Your task to perform on an android device: open chrome and create a bookmark for the current page Image 0: 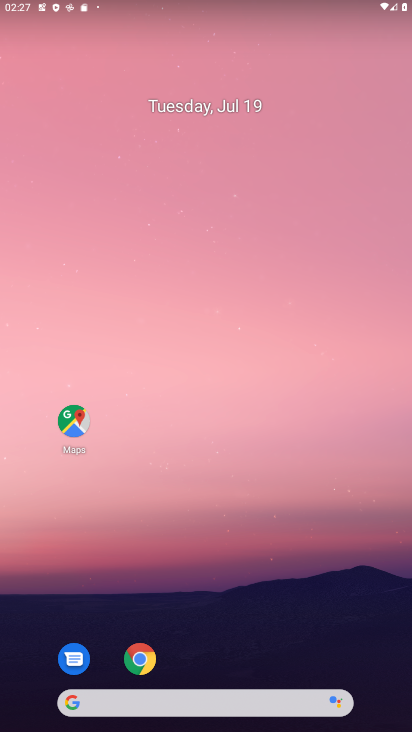
Step 0: press home button
Your task to perform on an android device: open chrome and create a bookmark for the current page Image 1: 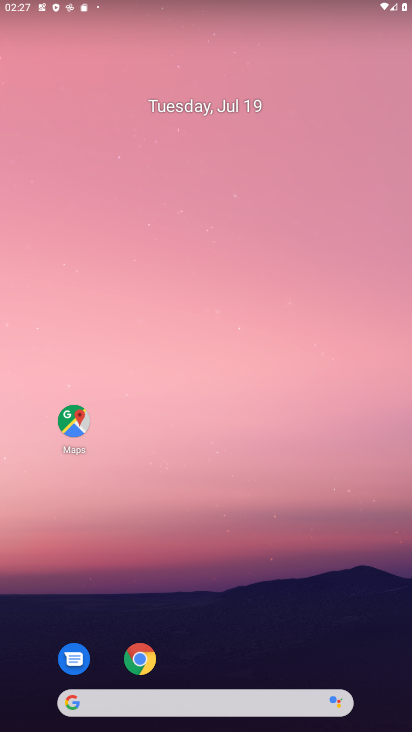
Step 1: drag from (232, 658) to (256, 150)
Your task to perform on an android device: open chrome and create a bookmark for the current page Image 2: 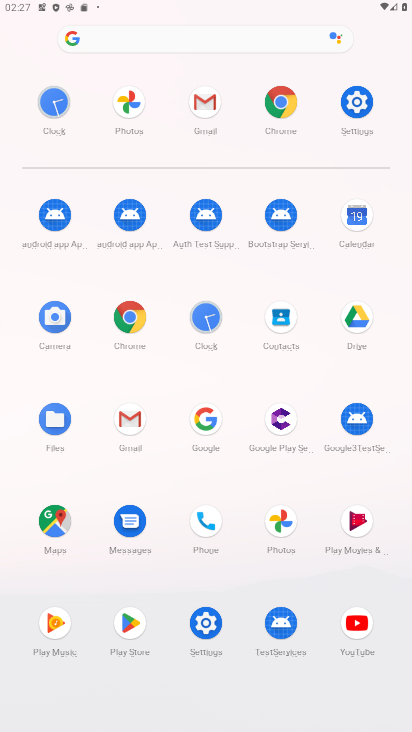
Step 2: click (291, 86)
Your task to perform on an android device: open chrome and create a bookmark for the current page Image 3: 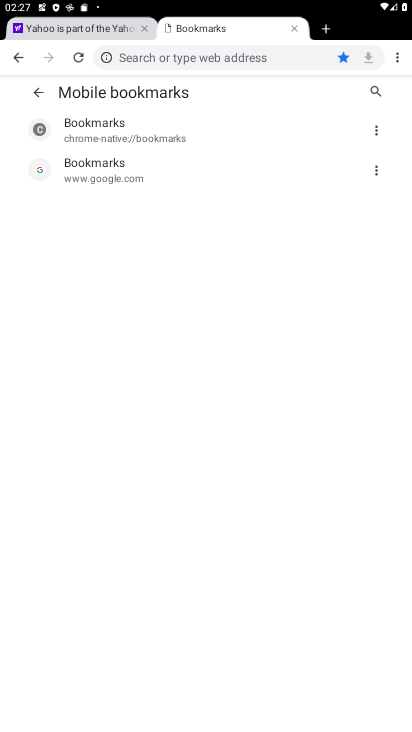
Step 3: click (90, 25)
Your task to perform on an android device: open chrome and create a bookmark for the current page Image 4: 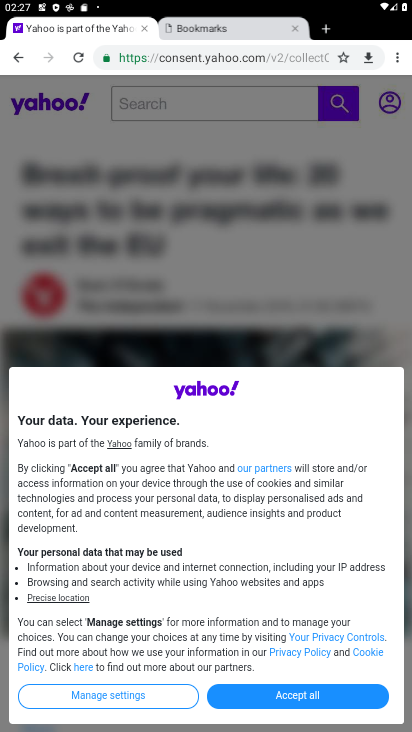
Step 4: click (344, 55)
Your task to perform on an android device: open chrome and create a bookmark for the current page Image 5: 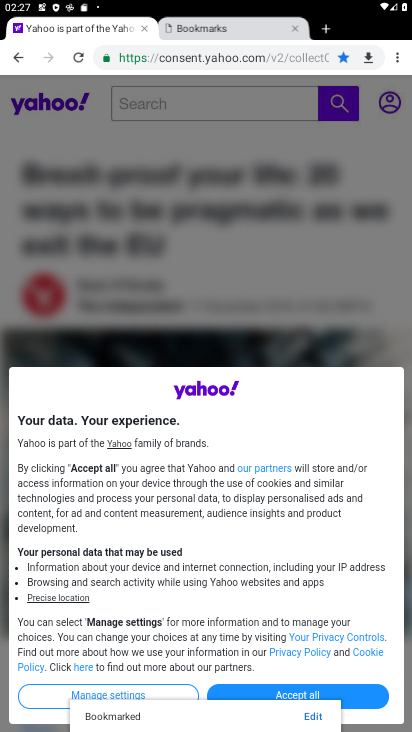
Step 5: task complete